Your task to perform on an android device: turn on javascript in the chrome app Image 0: 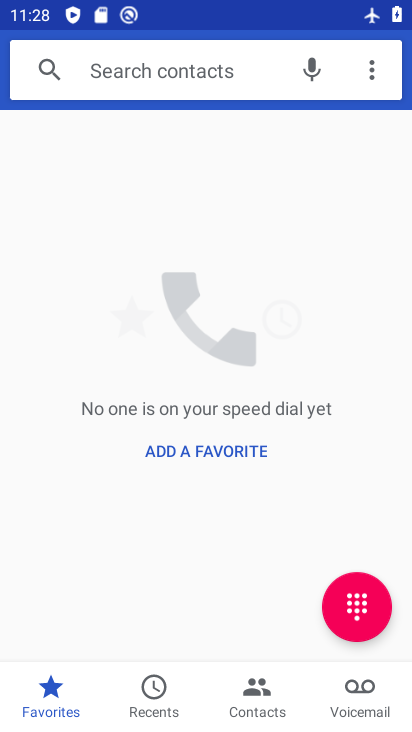
Step 0: press back button
Your task to perform on an android device: turn on javascript in the chrome app Image 1: 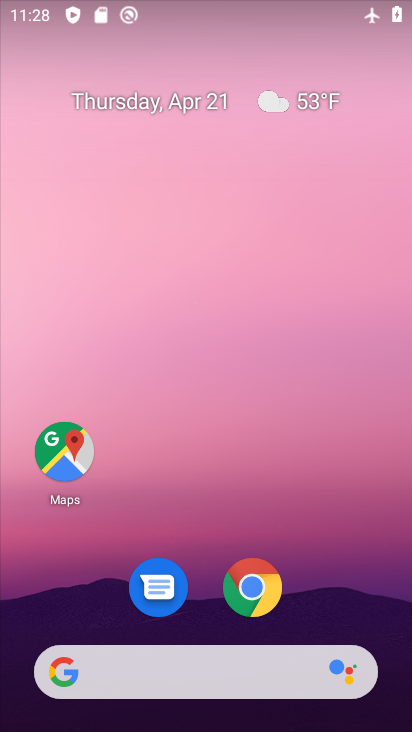
Step 1: click (258, 590)
Your task to perform on an android device: turn on javascript in the chrome app Image 2: 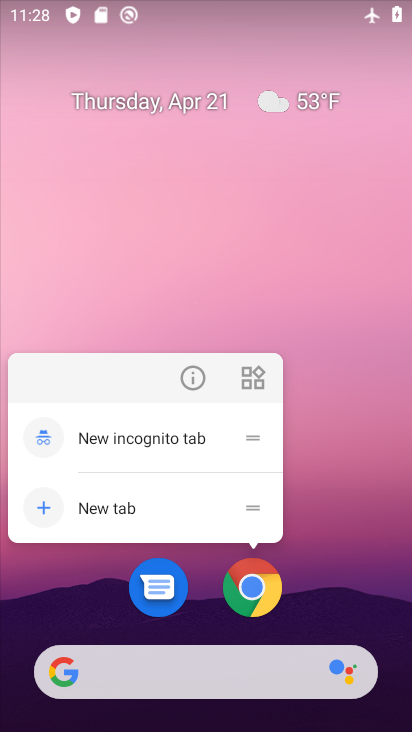
Step 2: click (252, 588)
Your task to perform on an android device: turn on javascript in the chrome app Image 3: 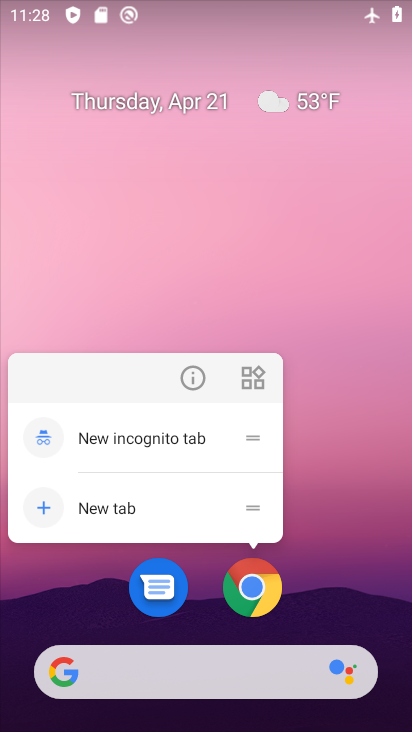
Step 3: click (269, 581)
Your task to perform on an android device: turn on javascript in the chrome app Image 4: 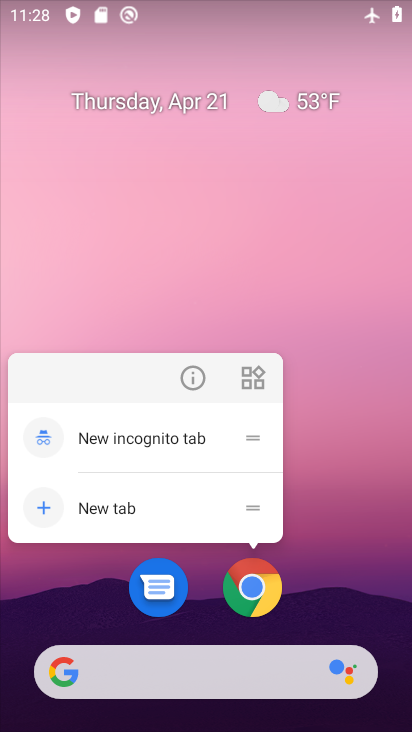
Step 4: click (248, 593)
Your task to perform on an android device: turn on javascript in the chrome app Image 5: 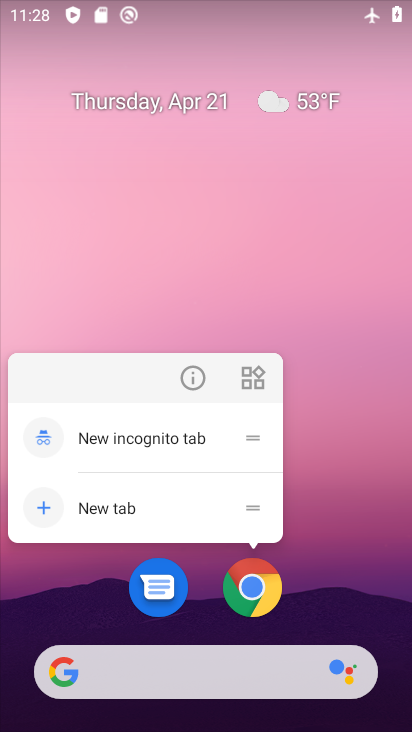
Step 5: click (248, 593)
Your task to perform on an android device: turn on javascript in the chrome app Image 6: 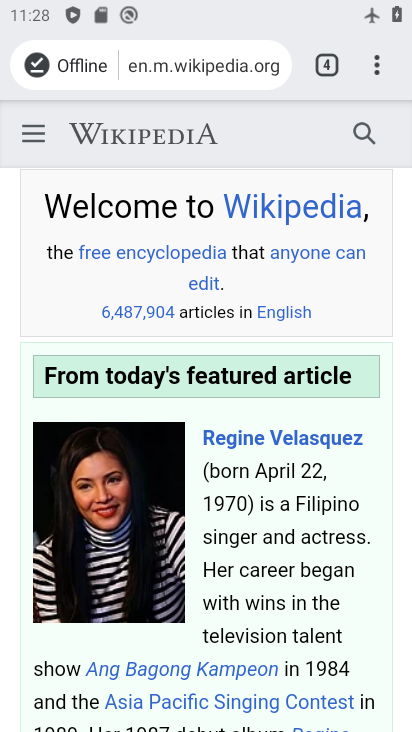
Step 6: click (377, 56)
Your task to perform on an android device: turn on javascript in the chrome app Image 7: 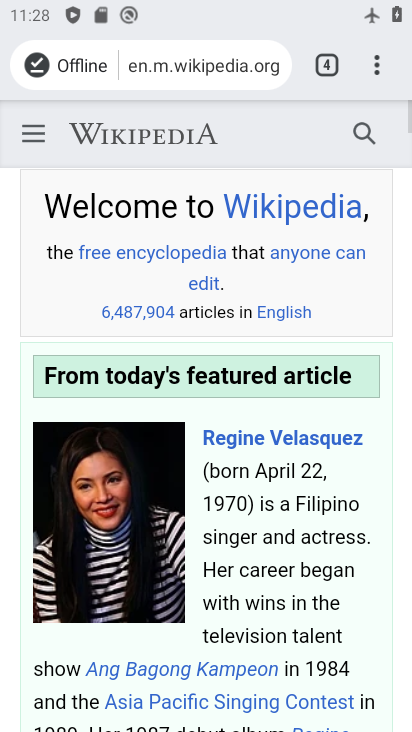
Step 7: click (375, 63)
Your task to perform on an android device: turn on javascript in the chrome app Image 8: 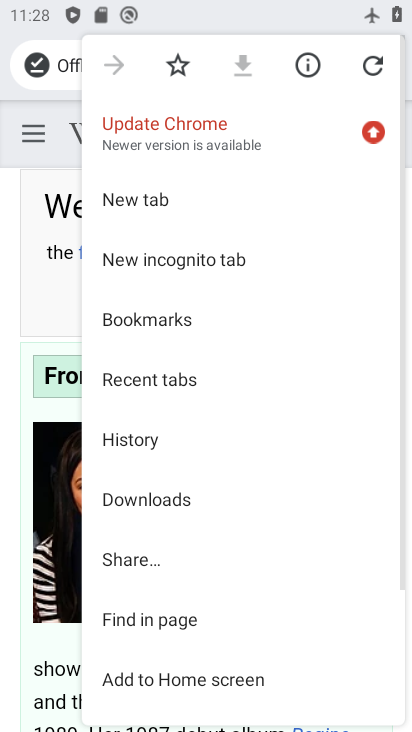
Step 8: drag from (188, 680) to (262, 147)
Your task to perform on an android device: turn on javascript in the chrome app Image 9: 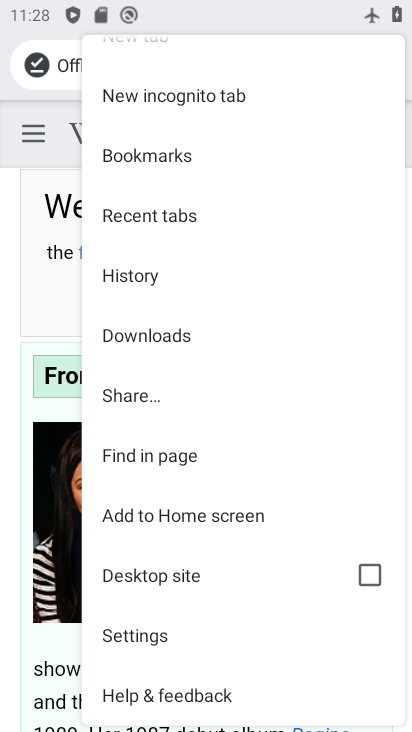
Step 9: click (145, 635)
Your task to perform on an android device: turn on javascript in the chrome app Image 10: 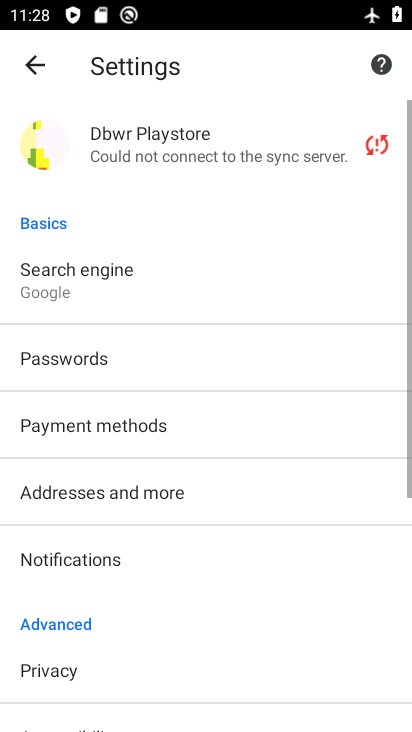
Step 10: drag from (134, 650) to (217, 186)
Your task to perform on an android device: turn on javascript in the chrome app Image 11: 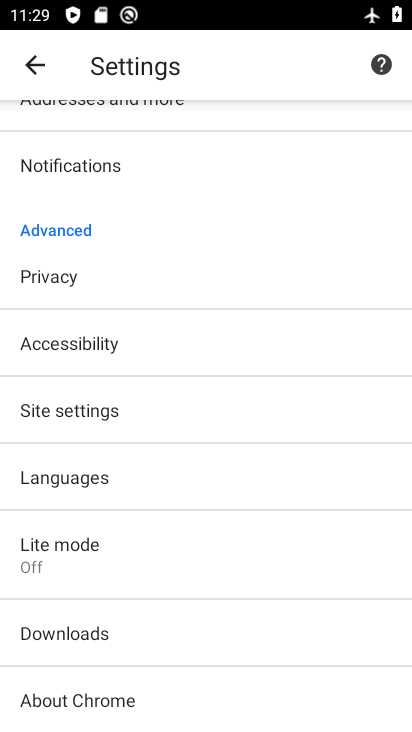
Step 11: click (89, 432)
Your task to perform on an android device: turn on javascript in the chrome app Image 12: 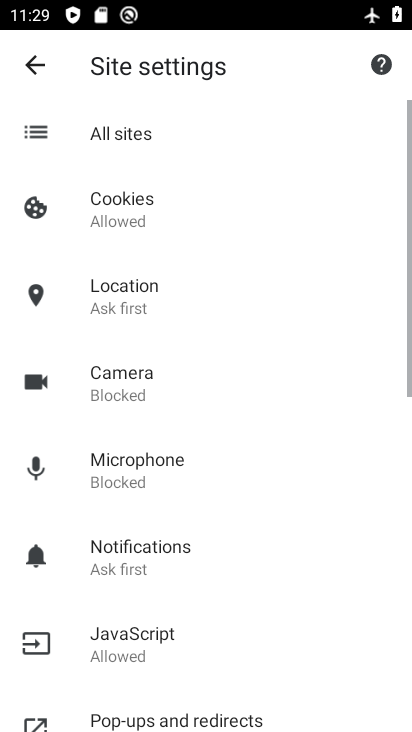
Step 12: click (135, 634)
Your task to perform on an android device: turn on javascript in the chrome app Image 13: 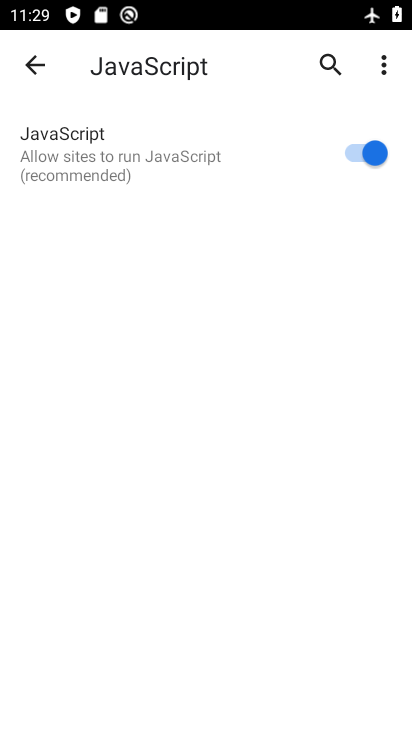
Step 13: task complete